Your task to perform on an android device: turn on notifications settings in the gmail app Image 0: 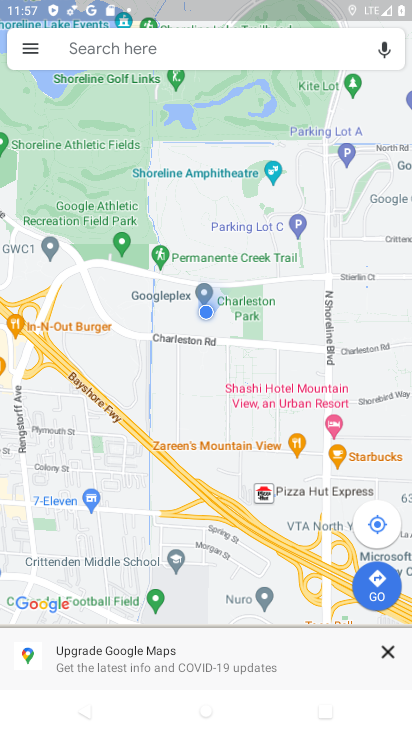
Step 0: press home button
Your task to perform on an android device: turn on notifications settings in the gmail app Image 1: 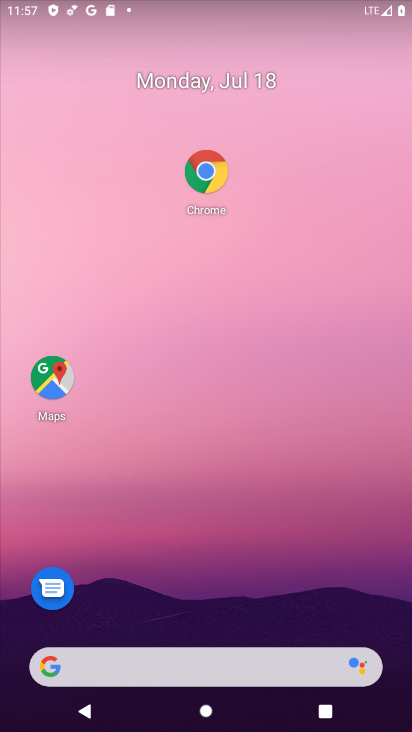
Step 1: drag from (125, 619) to (131, 367)
Your task to perform on an android device: turn on notifications settings in the gmail app Image 2: 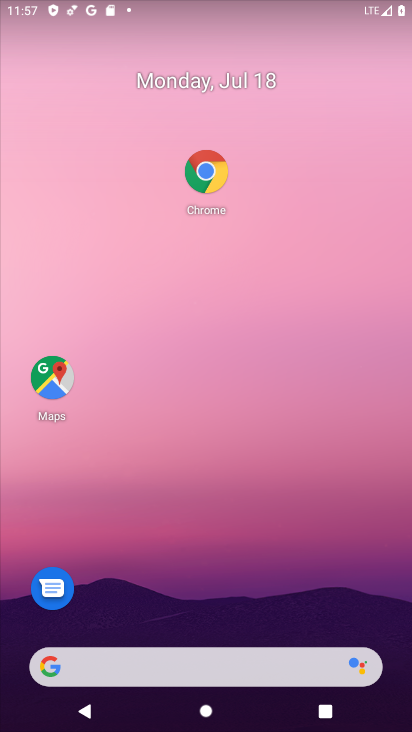
Step 2: drag from (151, 617) to (157, 107)
Your task to perform on an android device: turn on notifications settings in the gmail app Image 3: 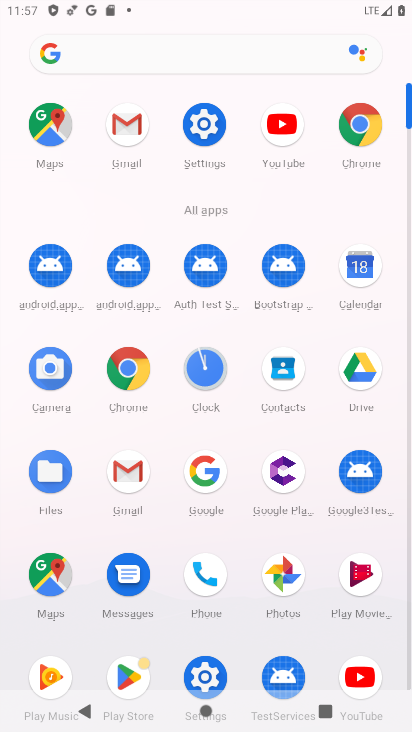
Step 3: click (202, 662)
Your task to perform on an android device: turn on notifications settings in the gmail app Image 4: 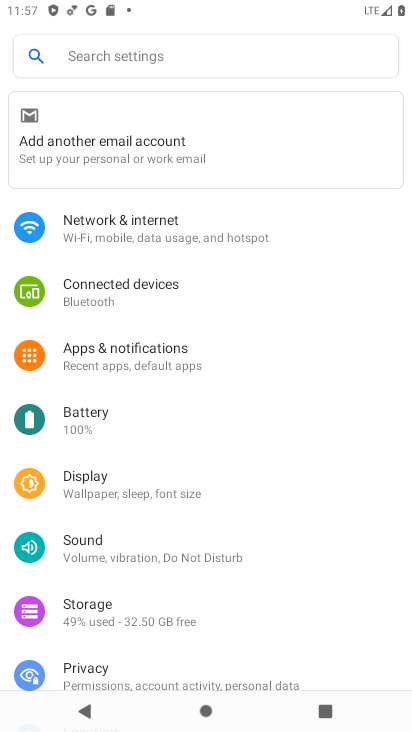
Step 4: click (208, 375)
Your task to perform on an android device: turn on notifications settings in the gmail app Image 5: 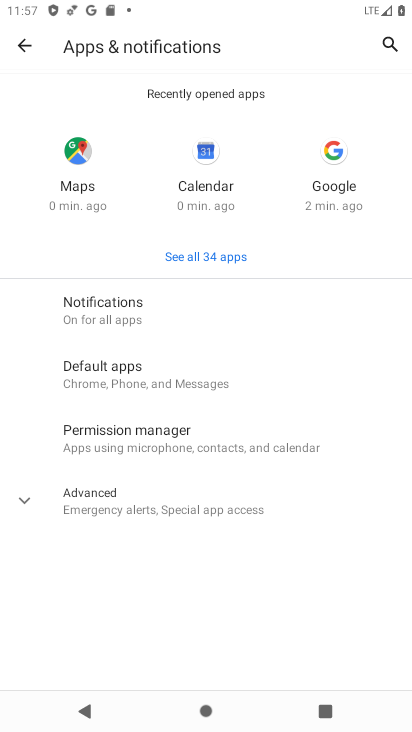
Step 5: click (231, 259)
Your task to perform on an android device: turn on notifications settings in the gmail app Image 6: 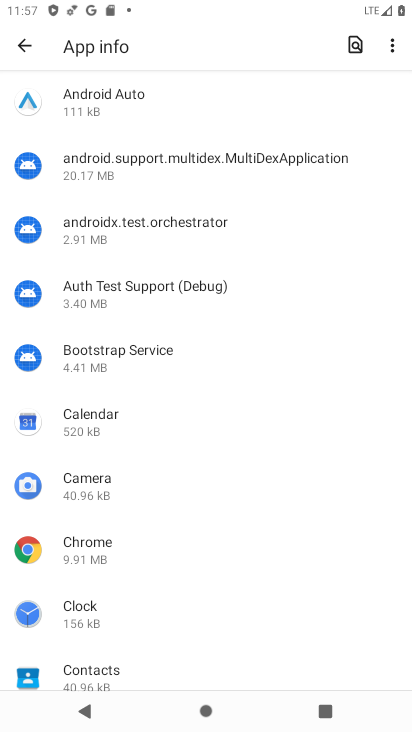
Step 6: drag from (59, 679) to (106, 255)
Your task to perform on an android device: turn on notifications settings in the gmail app Image 7: 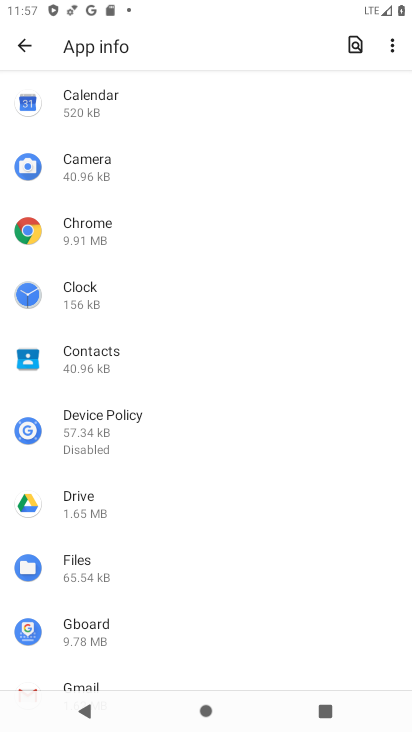
Step 7: drag from (54, 612) to (225, 186)
Your task to perform on an android device: turn on notifications settings in the gmail app Image 8: 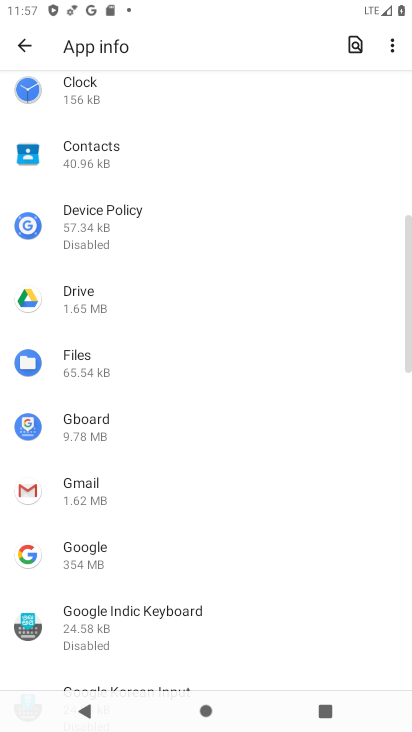
Step 8: click (111, 498)
Your task to perform on an android device: turn on notifications settings in the gmail app Image 9: 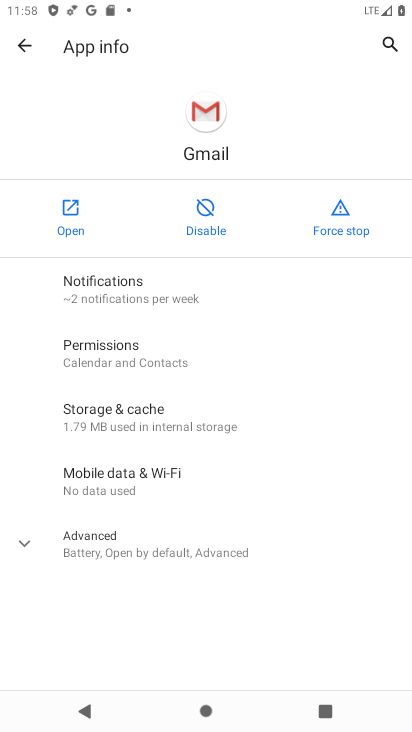
Step 9: click (167, 299)
Your task to perform on an android device: turn on notifications settings in the gmail app Image 10: 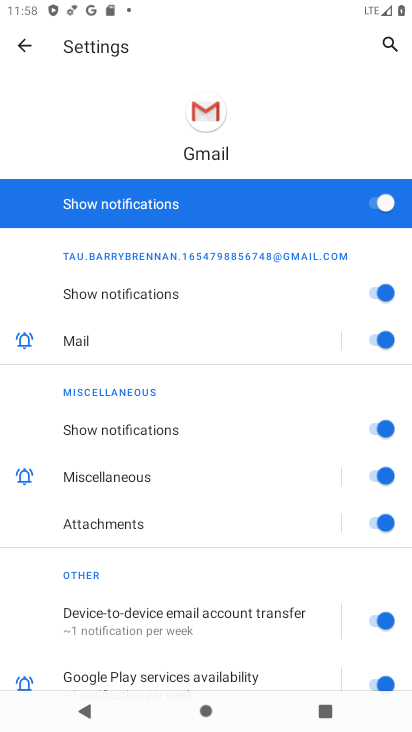
Step 10: task complete